Your task to perform on an android device: Open calendar and show me the first week of next month Image 0: 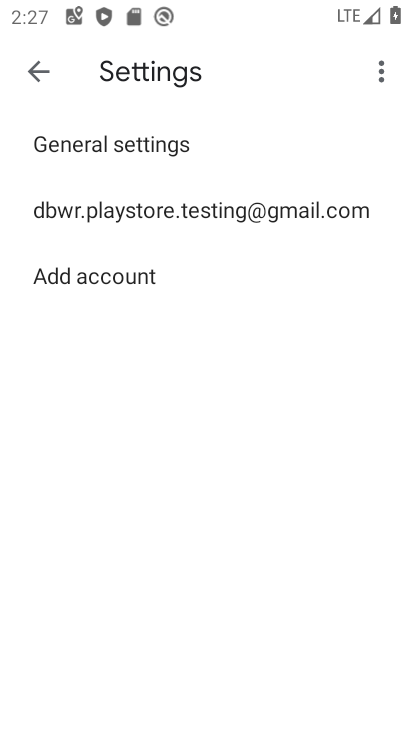
Step 0: press home button
Your task to perform on an android device: Open calendar and show me the first week of next month Image 1: 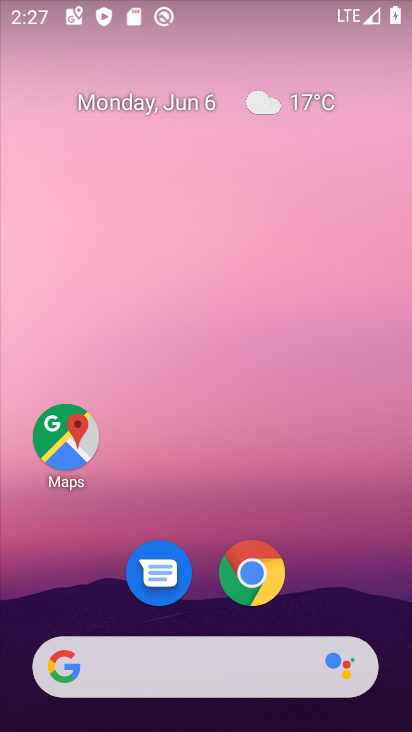
Step 1: drag from (362, 593) to (374, 111)
Your task to perform on an android device: Open calendar and show me the first week of next month Image 2: 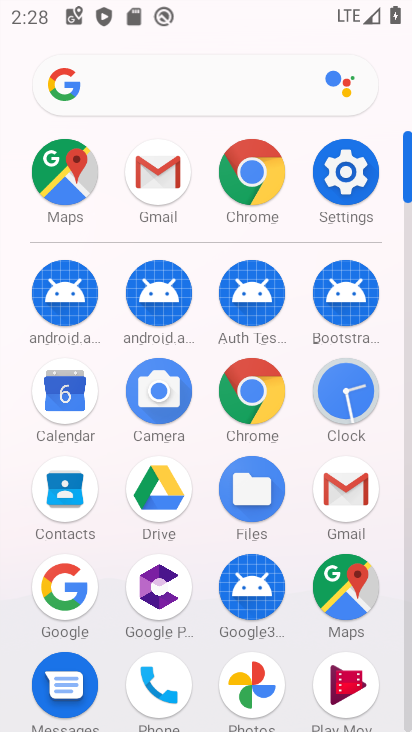
Step 2: click (67, 398)
Your task to perform on an android device: Open calendar and show me the first week of next month Image 3: 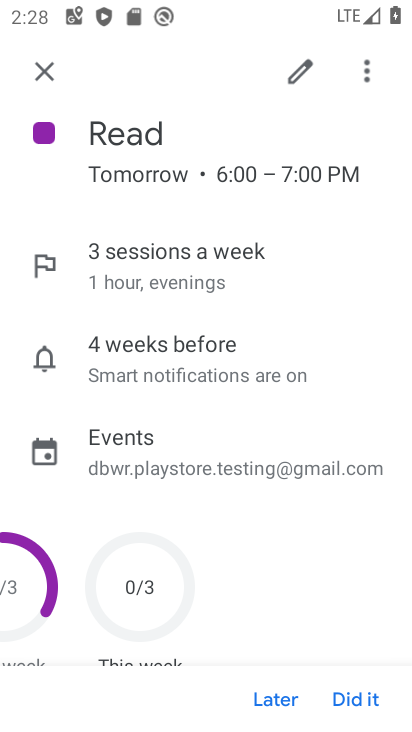
Step 3: click (41, 78)
Your task to perform on an android device: Open calendar and show me the first week of next month Image 4: 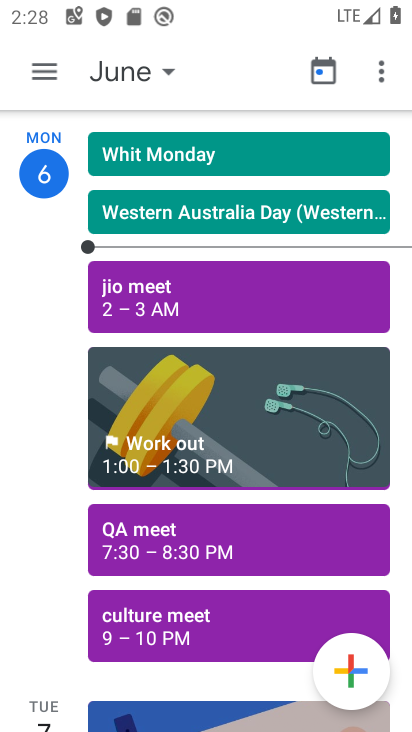
Step 4: click (164, 75)
Your task to perform on an android device: Open calendar and show me the first week of next month Image 5: 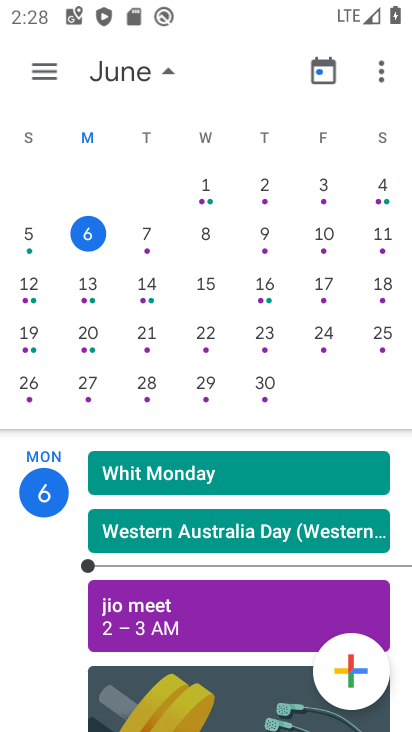
Step 5: drag from (392, 160) to (5, 160)
Your task to perform on an android device: Open calendar and show me the first week of next month Image 6: 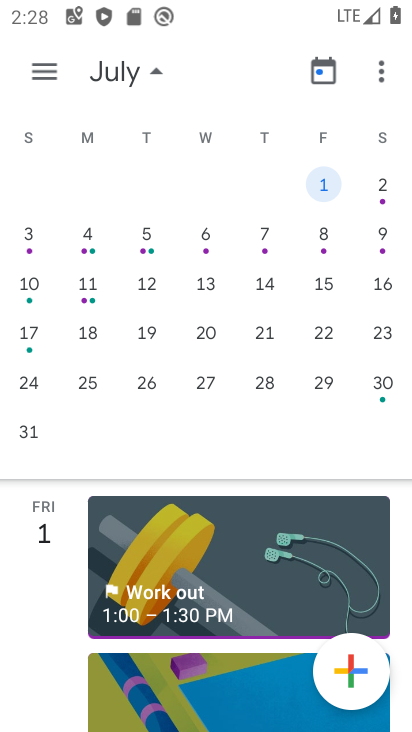
Step 6: click (87, 234)
Your task to perform on an android device: Open calendar and show me the first week of next month Image 7: 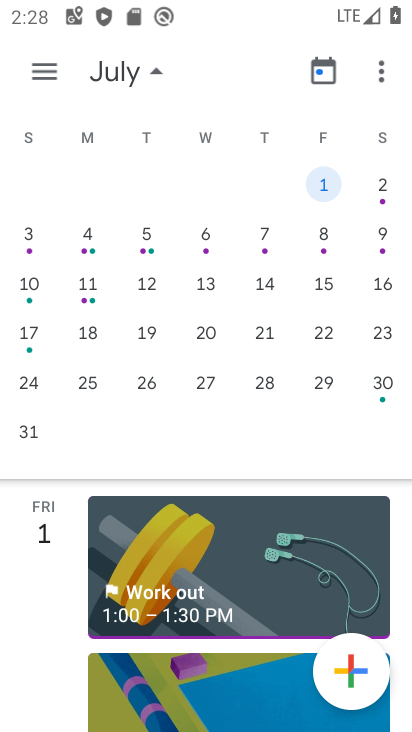
Step 7: click (88, 234)
Your task to perform on an android device: Open calendar and show me the first week of next month Image 8: 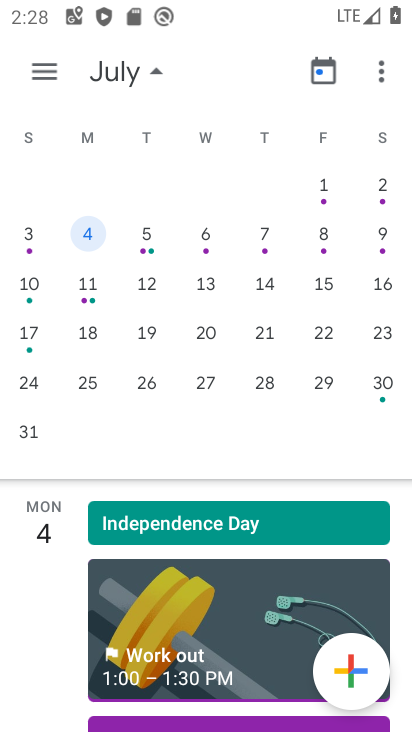
Step 8: task complete